Your task to perform on an android device: Open accessibility settings Image 0: 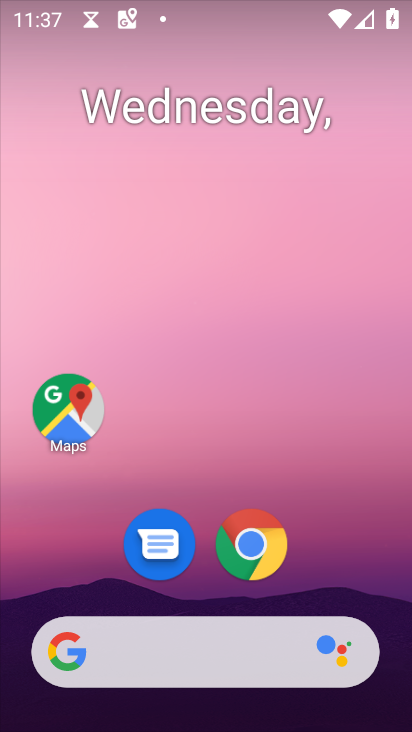
Step 0: drag from (313, 685) to (255, 144)
Your task to perform on an android device: Open accessibility settings Image 1: 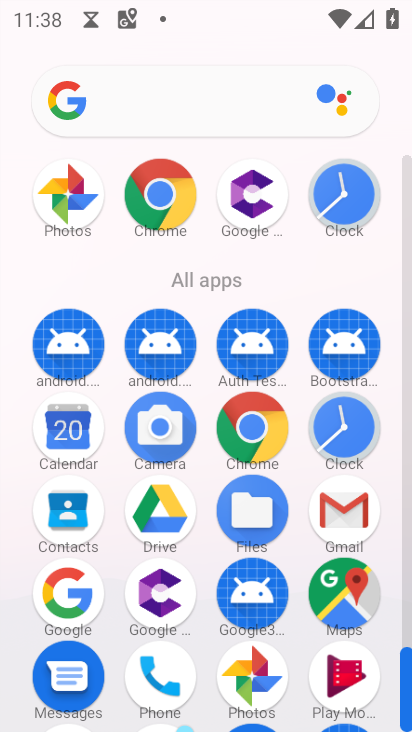
Step 1: drag from (208, 481) to (229, 308)
Your task to perform on an android device: Open accessibility settings Image 2: 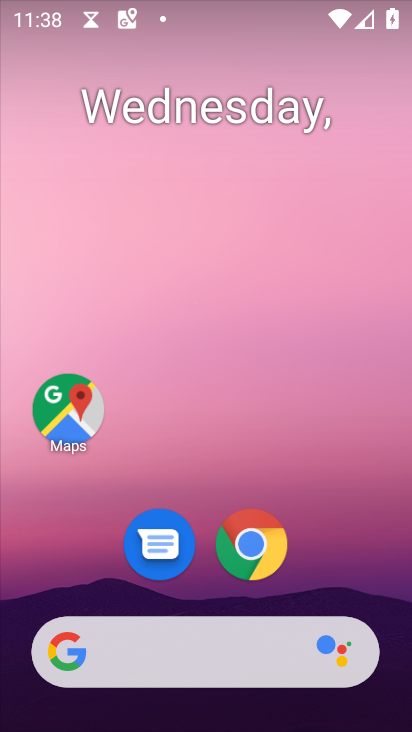
Step 2: drag from (200, 690) to (185, 340)
Your task to perform on an android device: Open accessibility settings Image 3: 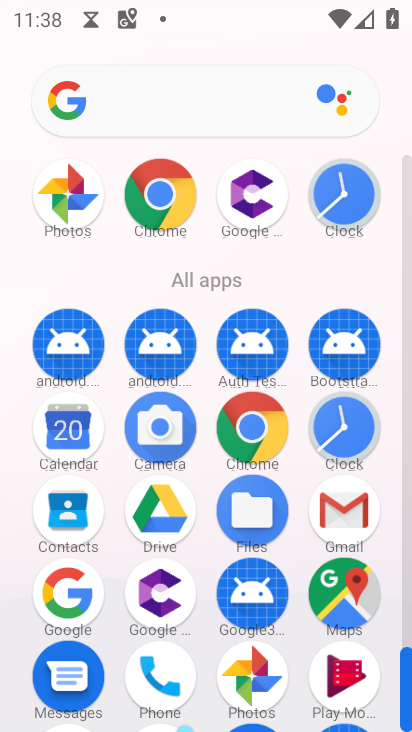
Step 3: drag from (113, 540) to (143, 359)
Your task to perform on an android device: Open accessibility settings Image 4: 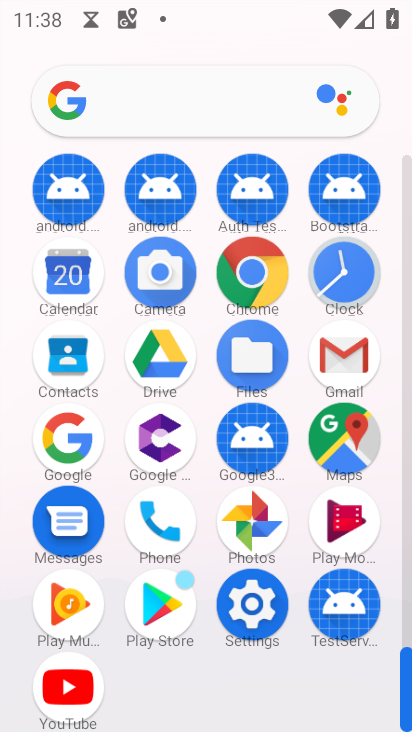
Step 4: click (243, 586)
Your task to perform on an android device: Open accessibility settings Image 5: 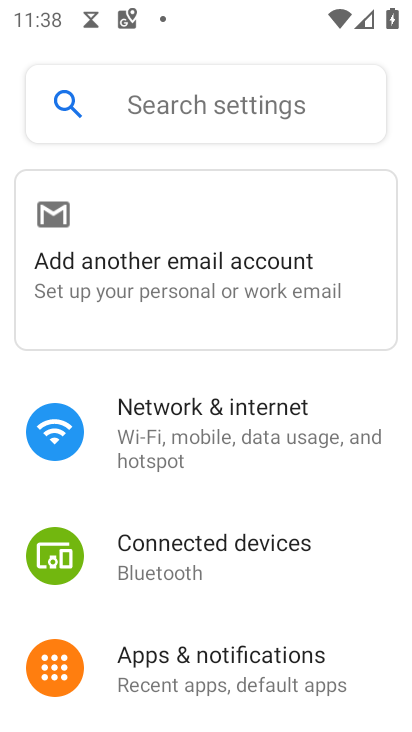
Step 5: click (201, 123)
Your task to perform on an android device: Open accessibility settings Image 6: 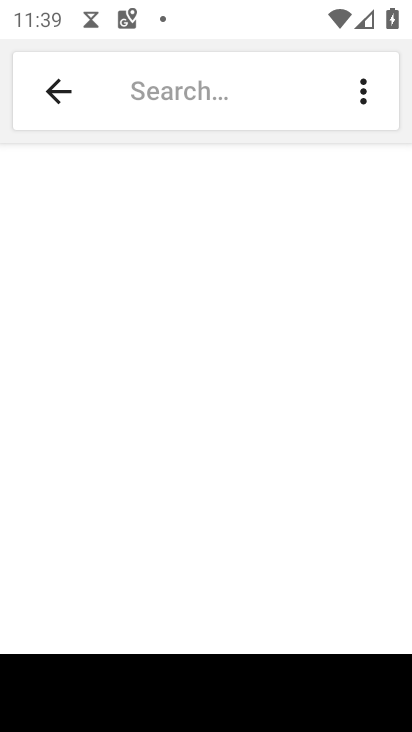
Step 6: click (381, 688)
Your task to perform on an android device: Open accessibility settings Image 7: 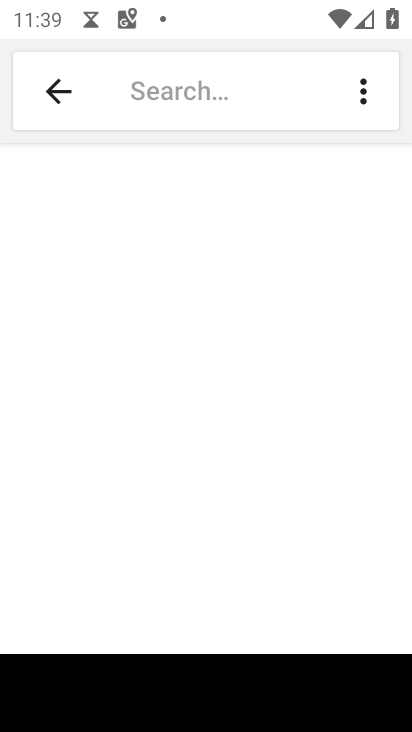
Step 7: drag from (388, 703) to (387, 626)
Your task to perform on an android device: Open accessibility settings Image 8: 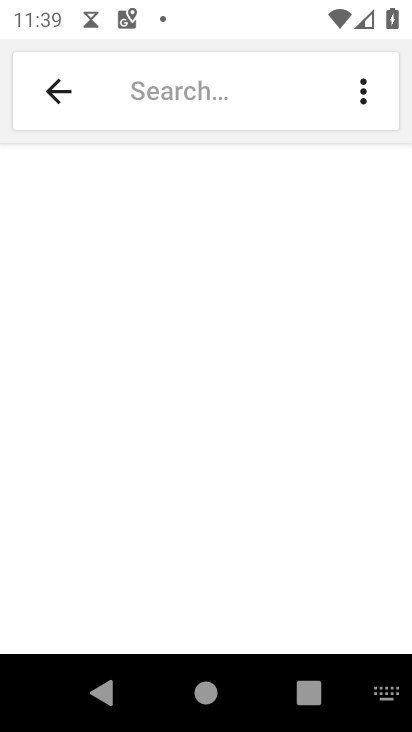
Step 8: click (381, 692)
Your task to perform on an android device: Open accessibility settings Image 9: 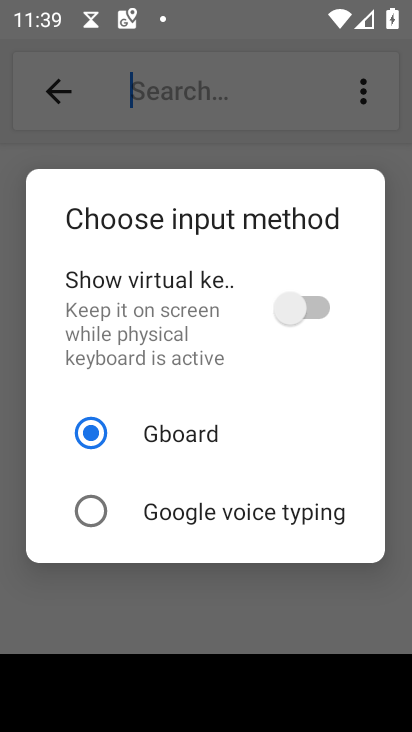
Step 9: click (306, 317)
Your task to perform on an android device: Open accessibility settings Image 10: 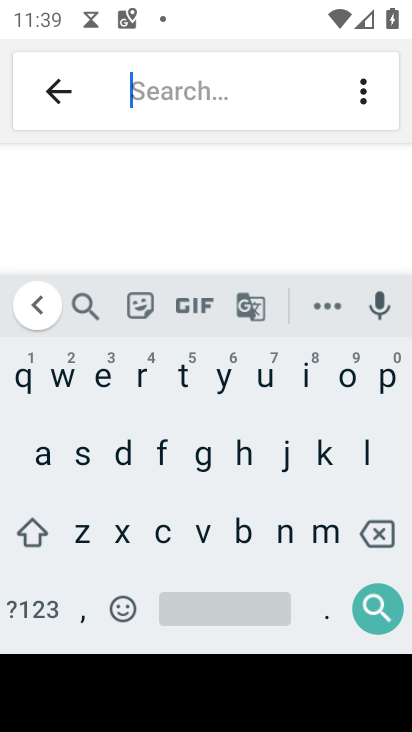
Step 10: click (47, 446)
Your task to perform on an android device: Open accessibility settings Image 11: 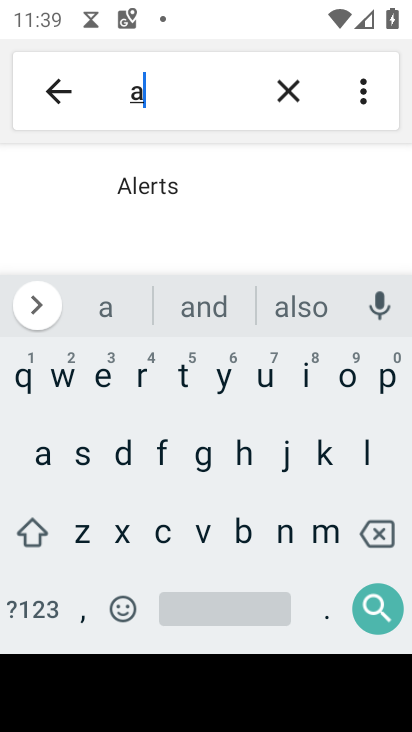
Step 11: click (155, 532)
Your task to perform on an android device: Open accessibility settings Image 12: 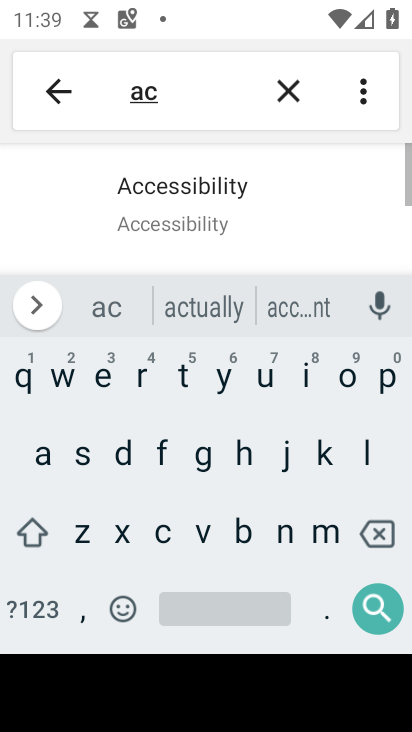
Step 12: click (217, 195)
Your task to perform on an android device: Open accessibility settings Image 13: 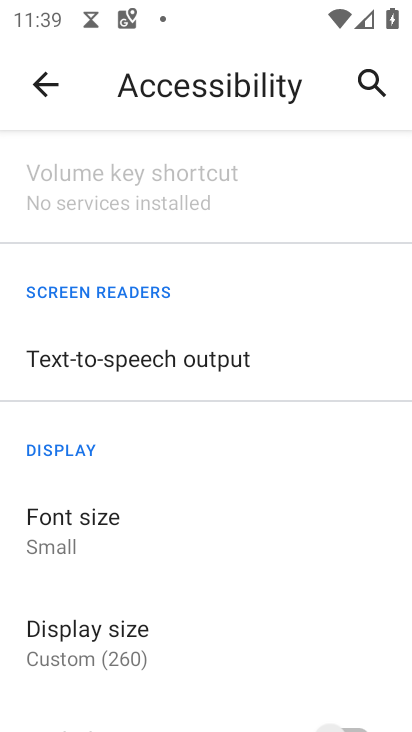
Step 13: task complete